Your task to perform on an android device: check storage Image 0: 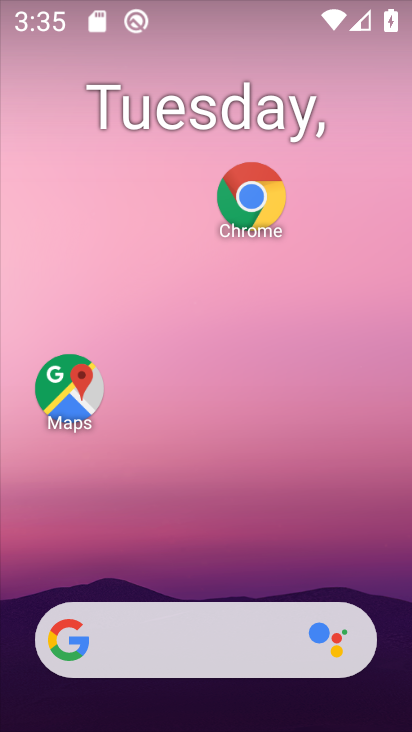
Step 0: drag from (242, 330) to (234, 237)
Your task to perform on an android device: check storage Image 1: 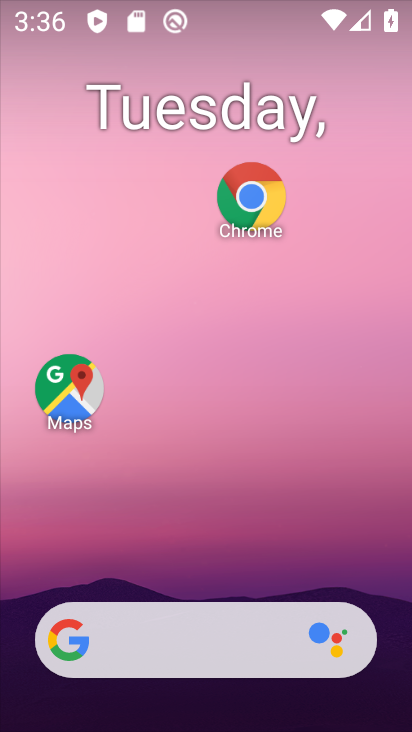
Step 1: drag from (165, 599) to (166, 115)
Your task to perform on an android device: check storage Image 2: 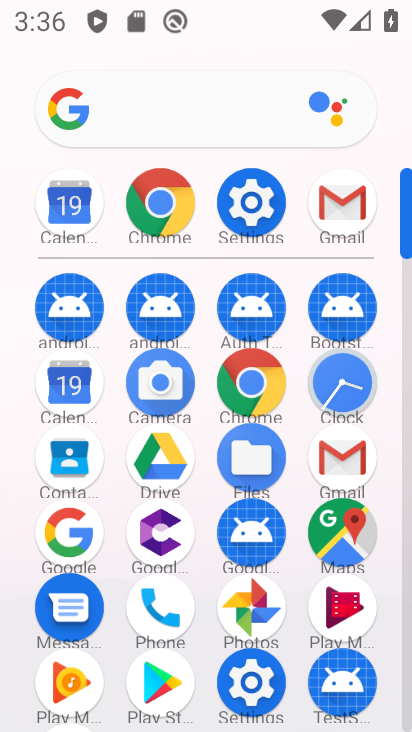
Step 2: click (252, 194)
Your task to perform on an android device: check storage Image 3: 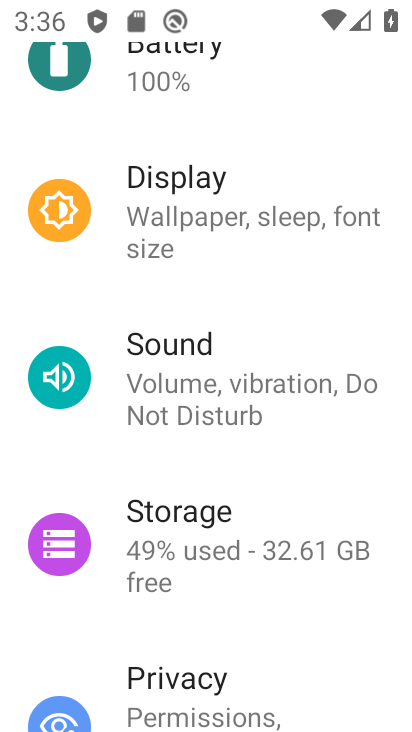
Step 3: click (191, 540)
Your task to perform on an android device: check storage Image 4: 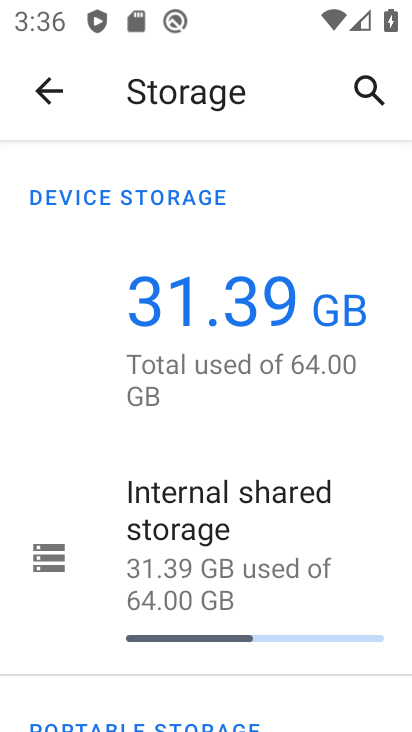
Step 4: task complete